Your task to perform on an android device: open app "Facebook Messenger" (install if not already installed) Image 0: 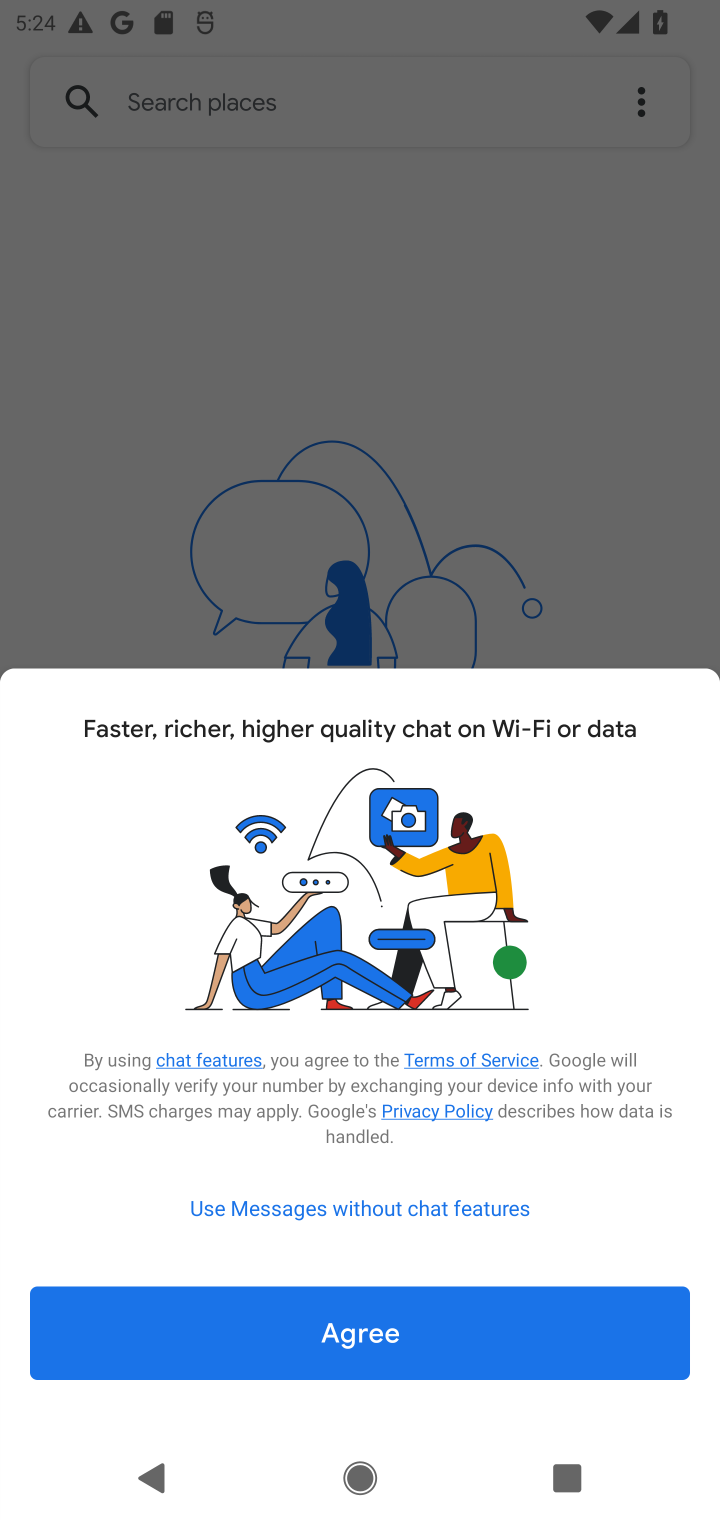
Step 0: press home button
Your task to perform on an android device: open app "Facebook Messenger" (install if not already installed) Image 1: 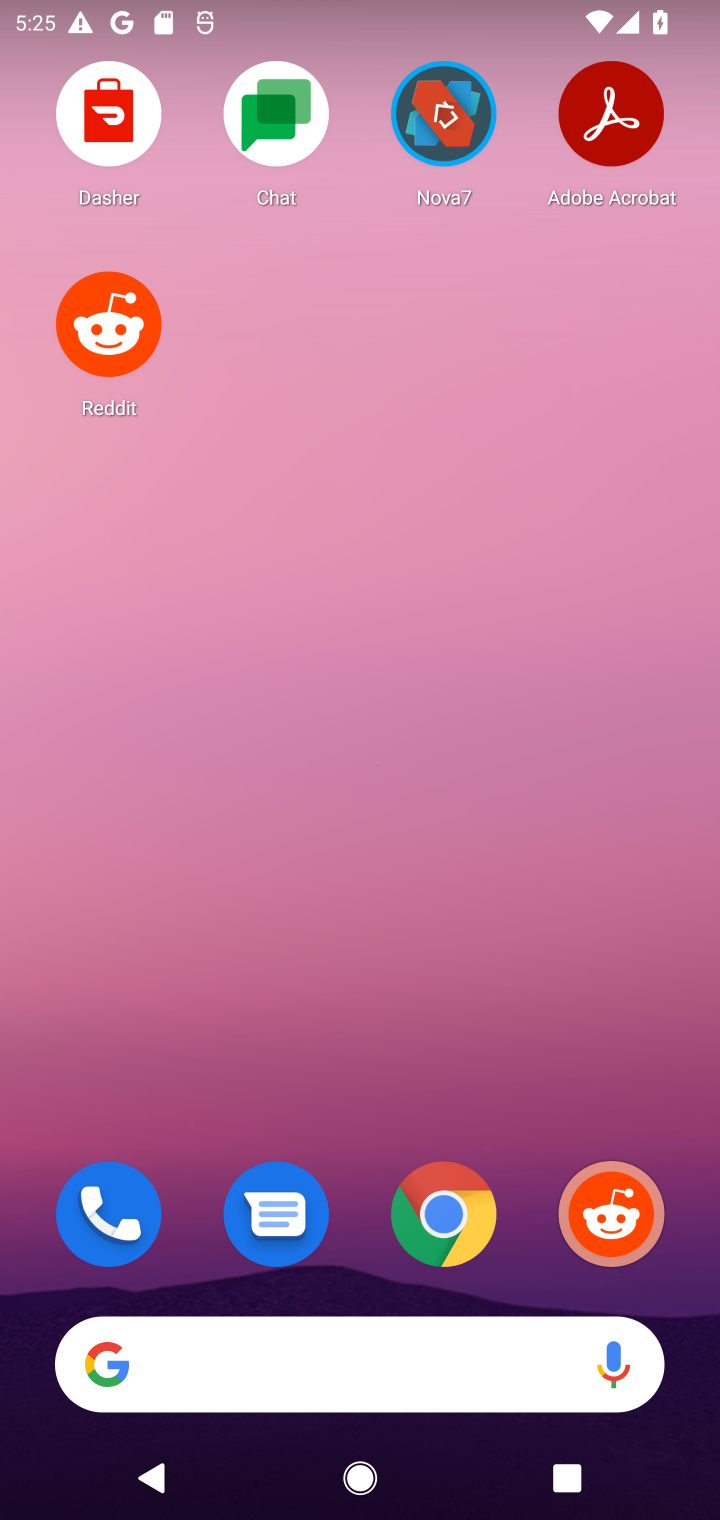
Step 1: drag from (328, 1160) to (386, 23)
Your task to perform on an android device: open app "Facebook Messenger" (install if not already installed) Image 2: 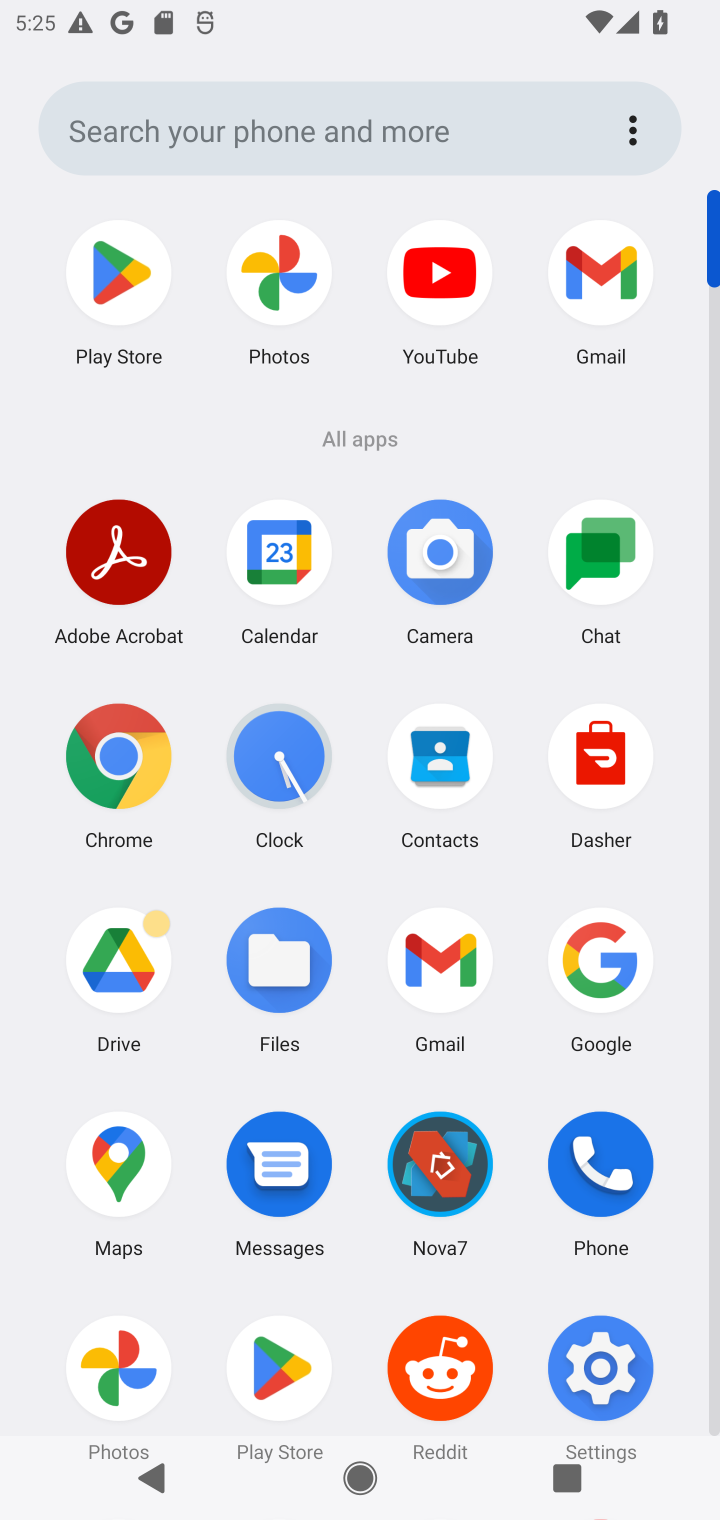
Step 2: click (266, 1379)
Your task to perform on an android device: open app "Facebook Messenger" (install if not already installed) Image 3: 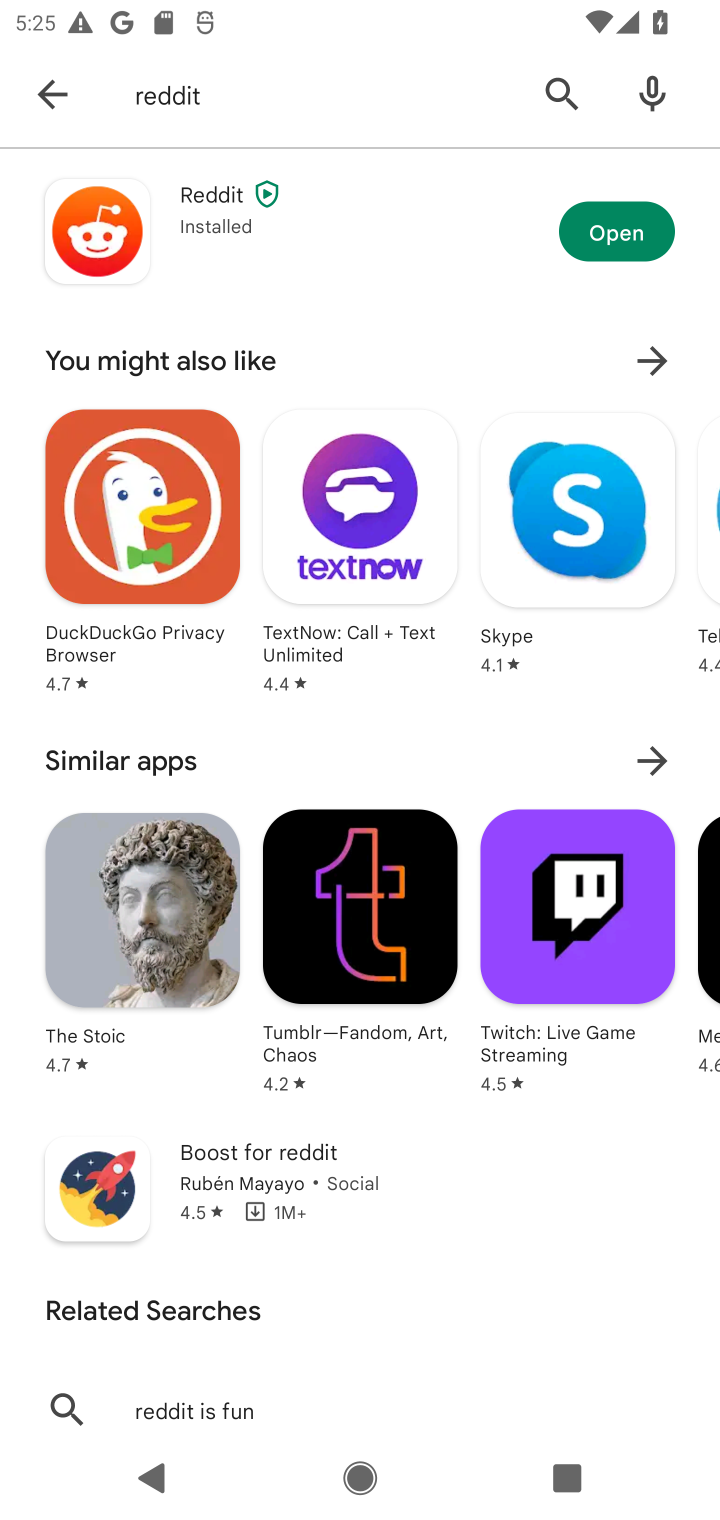
Step 3: click (553, 97)
Your task to perform on an android device: open app "Facebook Messenger" (install if not already installed) Image 4: 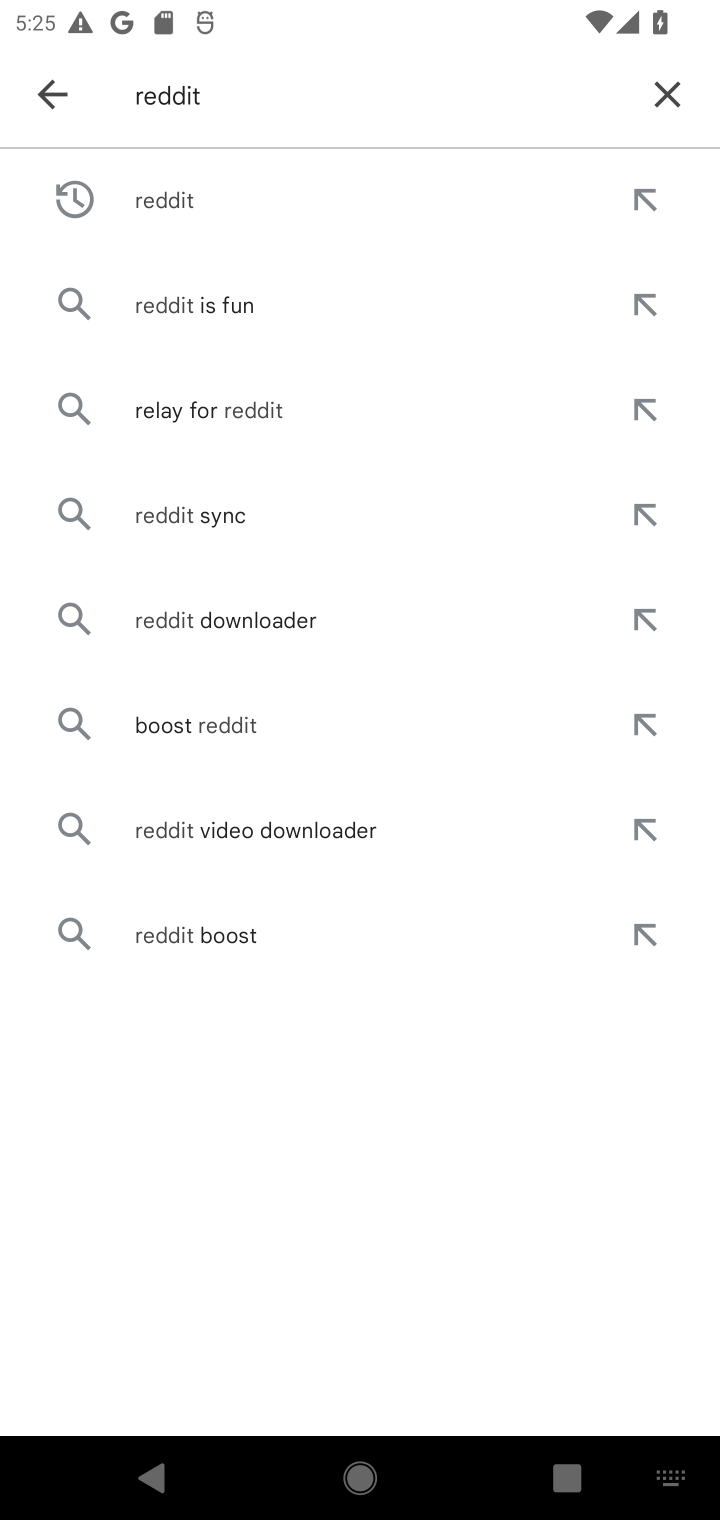
Step 4: click (663, 101)
Your task to perform on an android device: open app "Facebook Messenger" (install if not already installed) Image 5: 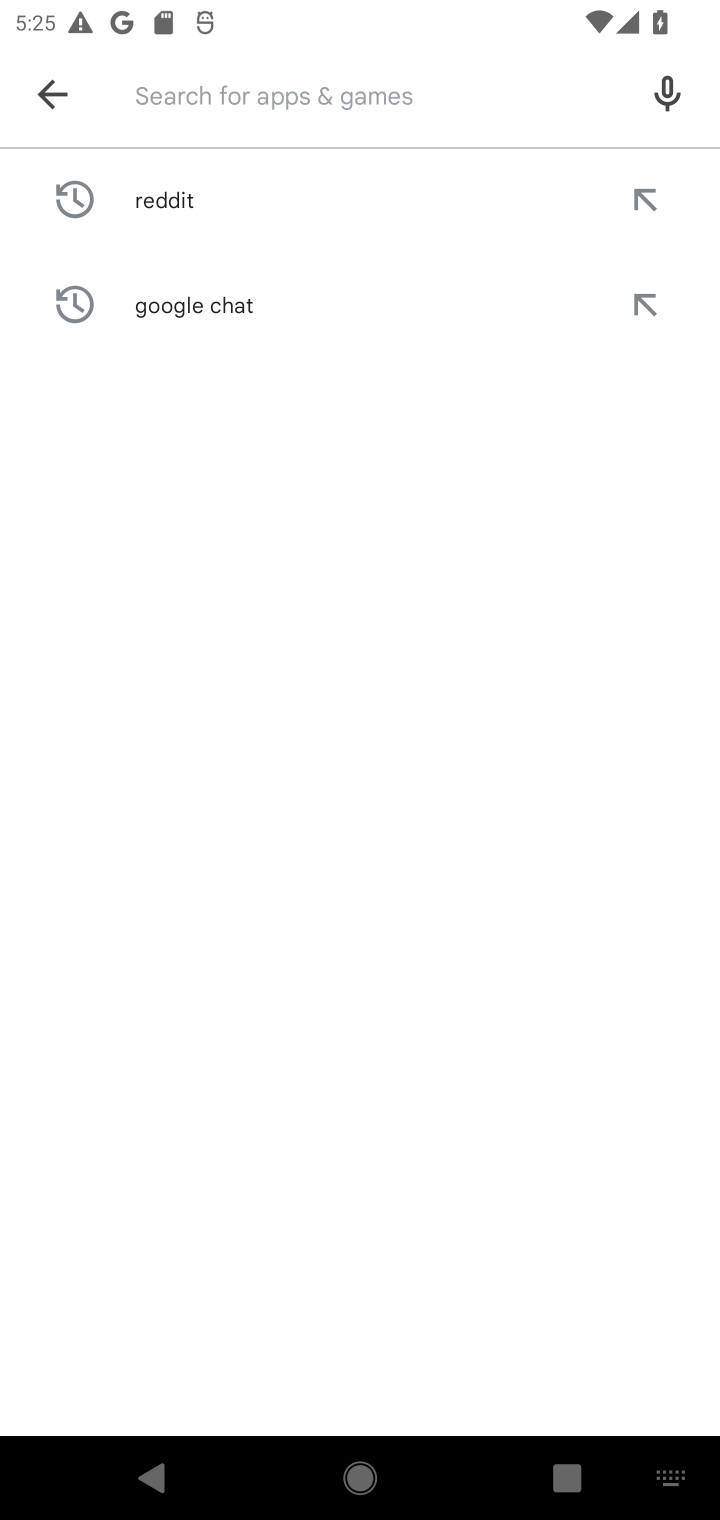
Step 5: type "Facebook Messenger"
Your task to perform on an android device: open app "Facebook Messenger" (install if not already installed) Image 6: 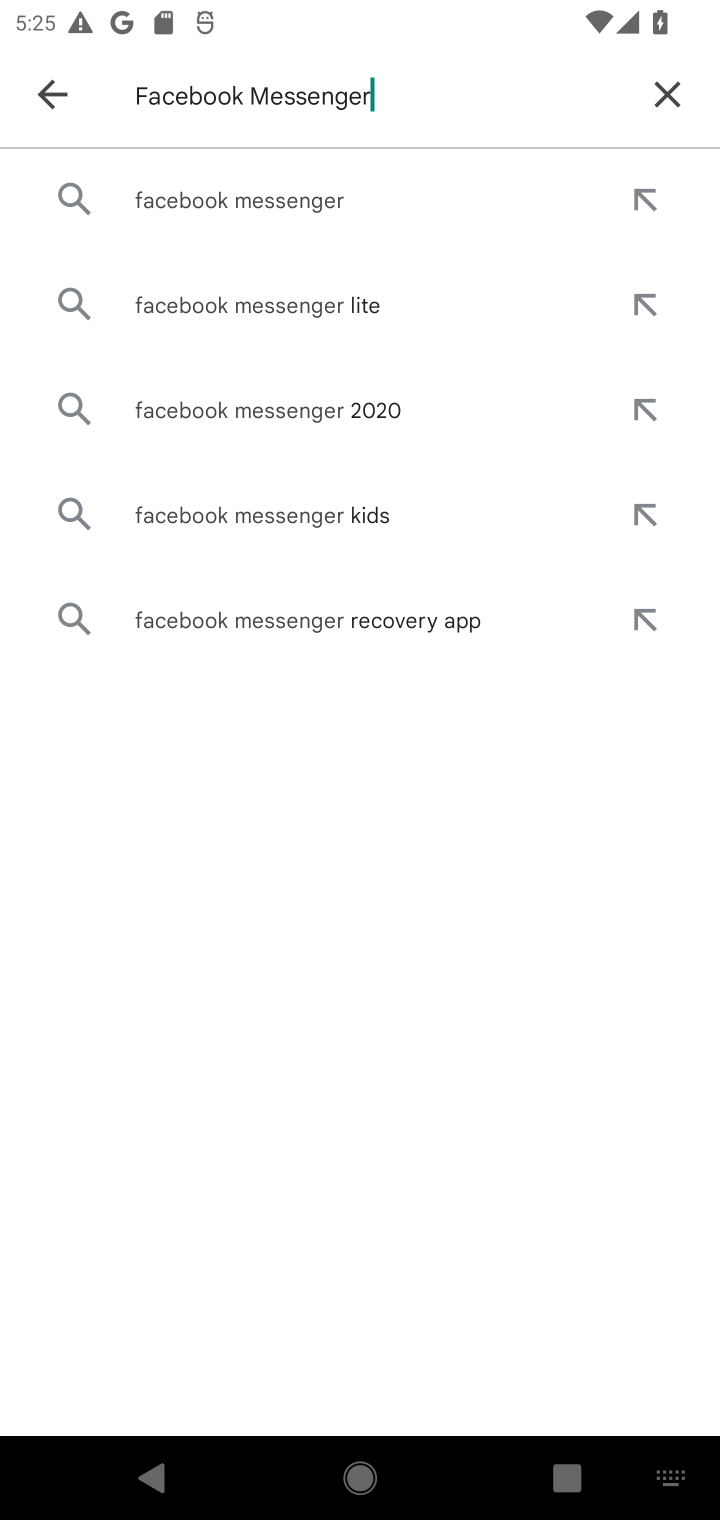
Step 6: click (292, 202)
Your task to perform on an android device: open app "Facebook Messenger" (install if not already installed) Image 7: 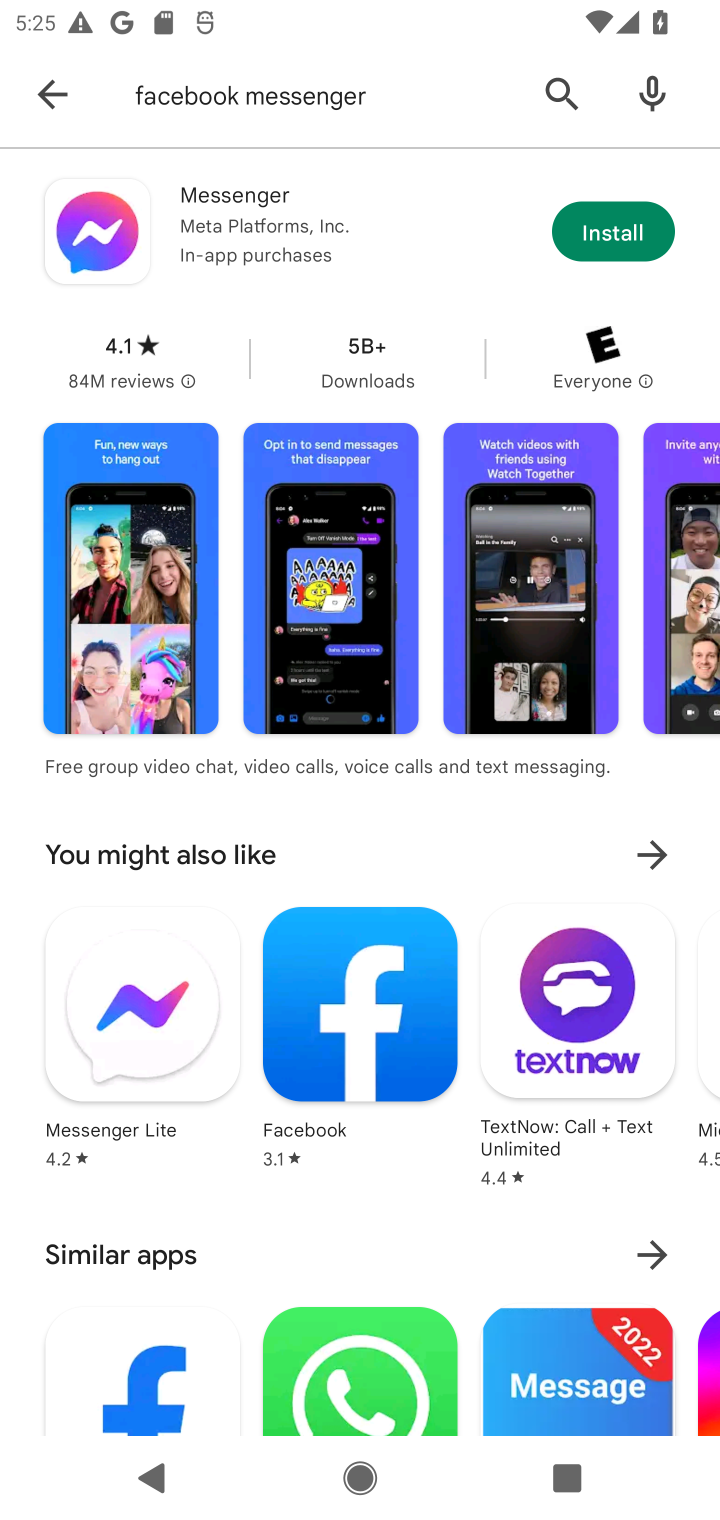
Step 7: click (576, 234)
Your task to perform on an android device: open app "Facebook Messenger" (install if not already installed) Image 8: 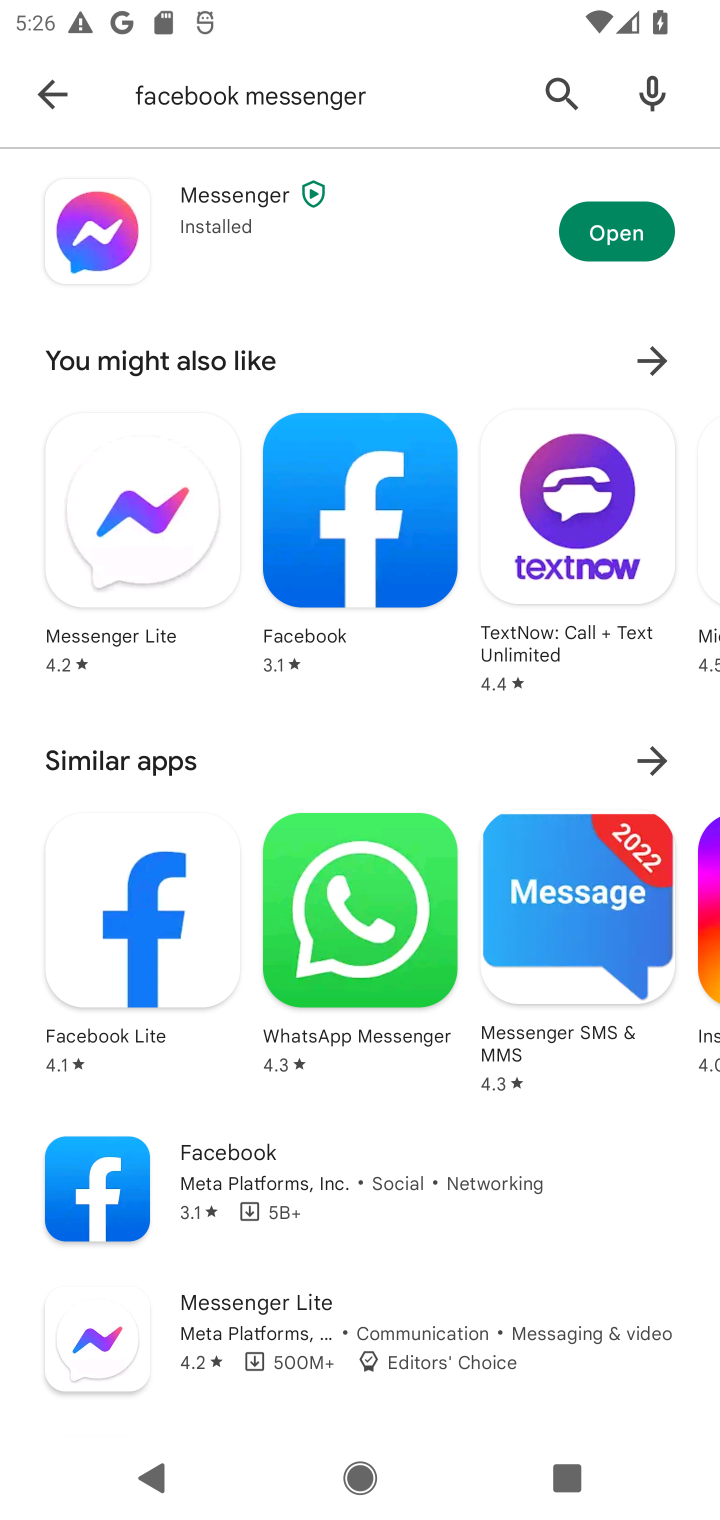
Step 8: click (613, 240)
Your task to perform on an android device: open app "Facebook Messenger" (install if not already installed) Image 9: 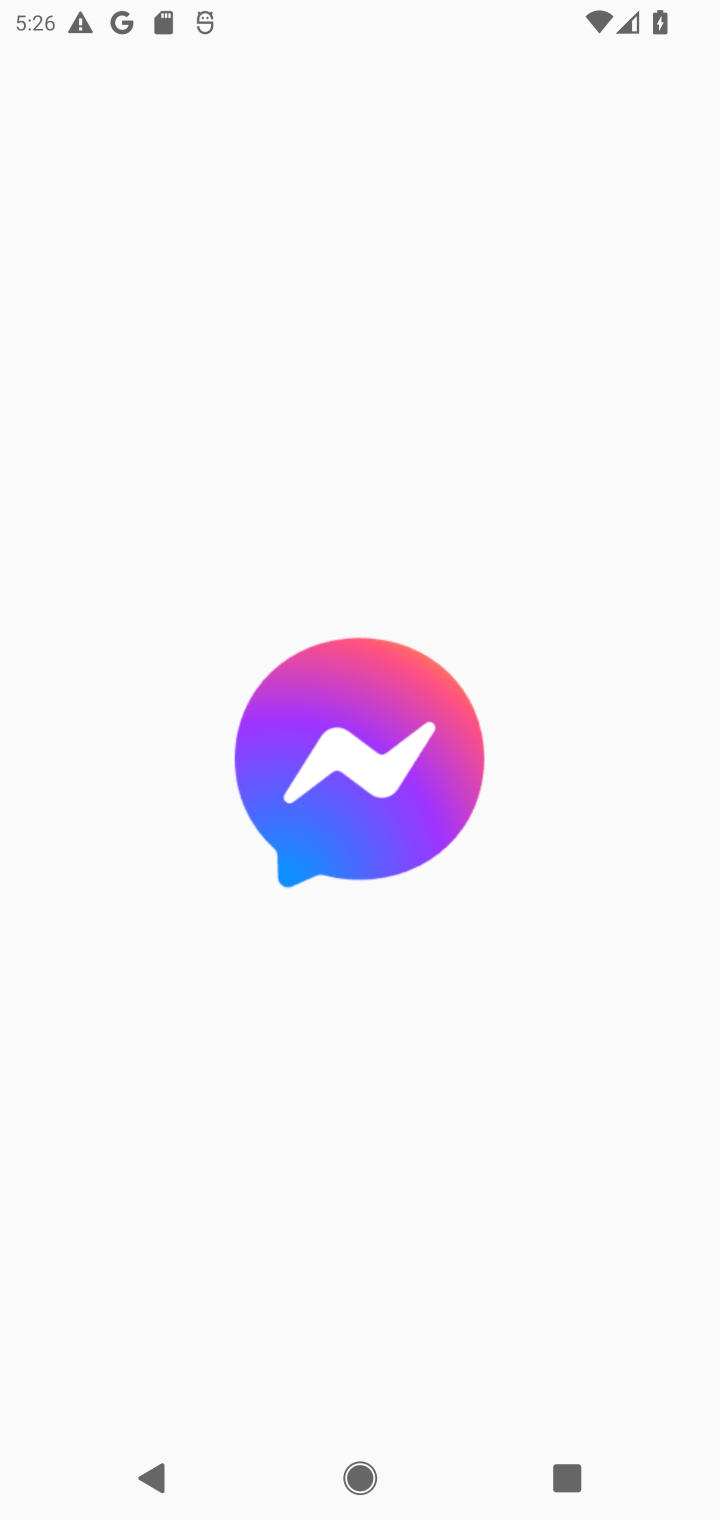
Step 9: task complete